Your task to perform on an android device: turn off javascript in the chrome app Image 0: 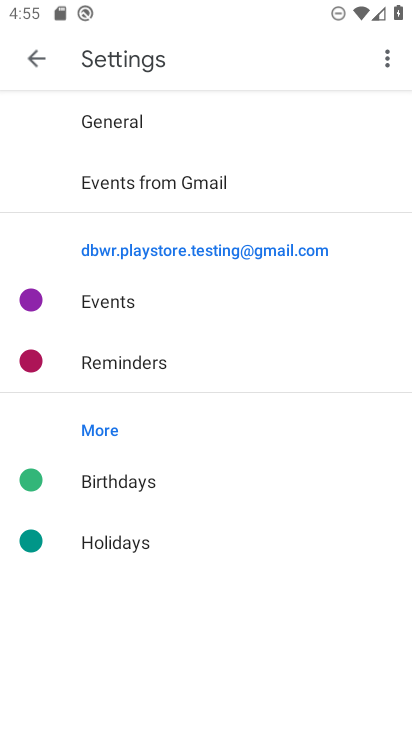
Step 0: press home button
Your task to perform on an android device: turn off javascript in the chrome app Image 1: 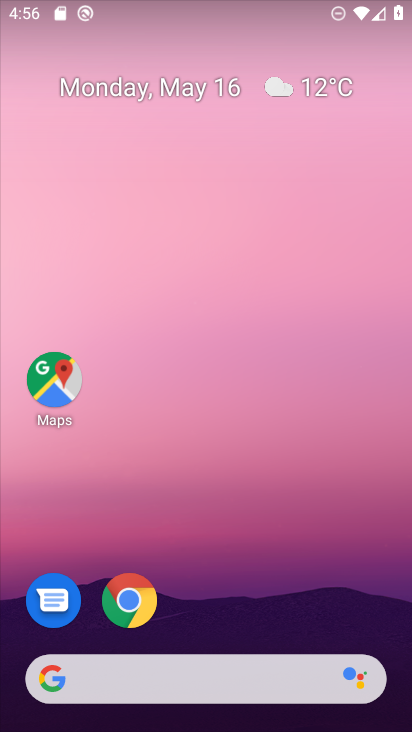
Step 1: click (123, 601)
Your task to perform on an android device: turn off javascript in the chrome app Image 2: 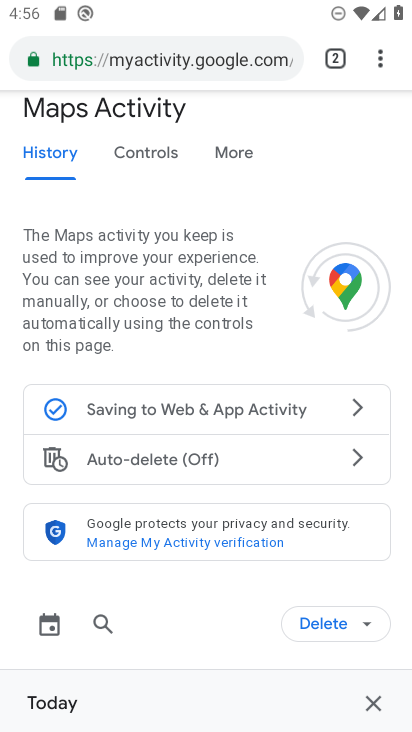
Step 2: drag from (379, 56) to (202, 627)
Your task to perform on an android device: turn off javascript in the chrome app Image 3: 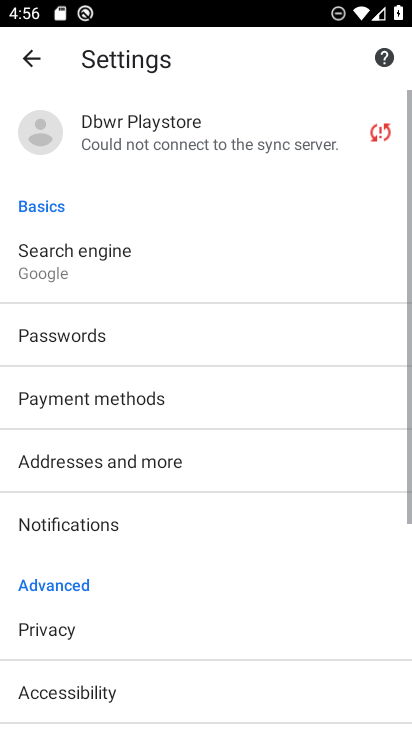
Step 3: drag from (198, 619) to (268, 39)
Your task to perform on an android device: turn off javascript in the chrome app Image 4: 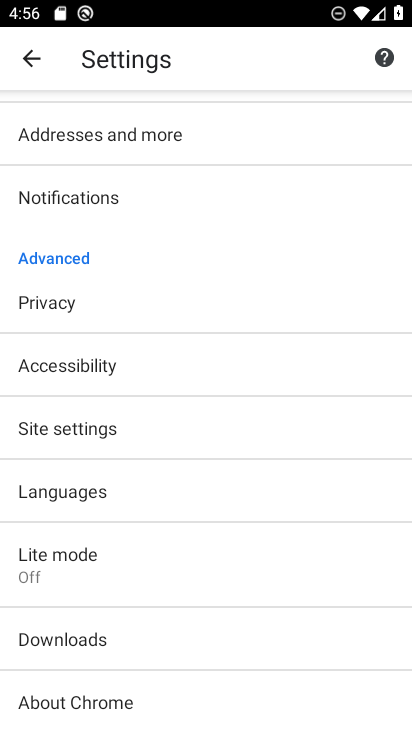
Step 4: click (137, 431)
Your task to perform on an android device: turn off javascript in the chrome app Image 5: 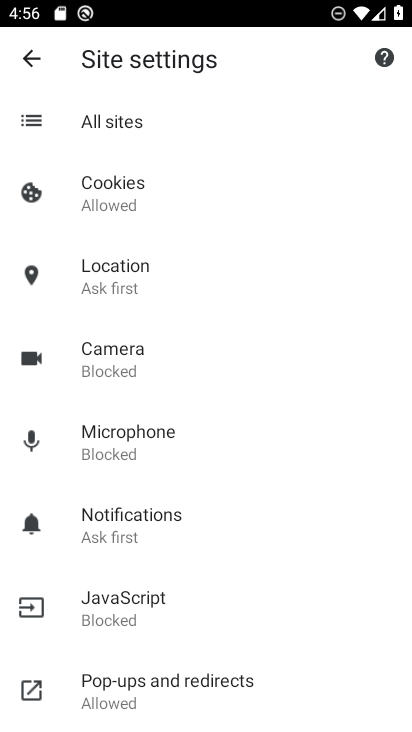
Step 5: click (162, 606)
Your task to perform on an android device: turn off javascript in the chrome app Image 6: 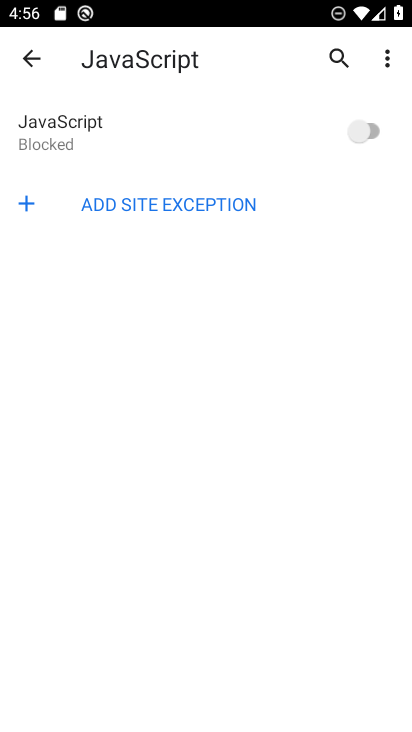
Step 6: task complete